Your task to perform on an android device: manage bookmarks in the chrome app Image 0: 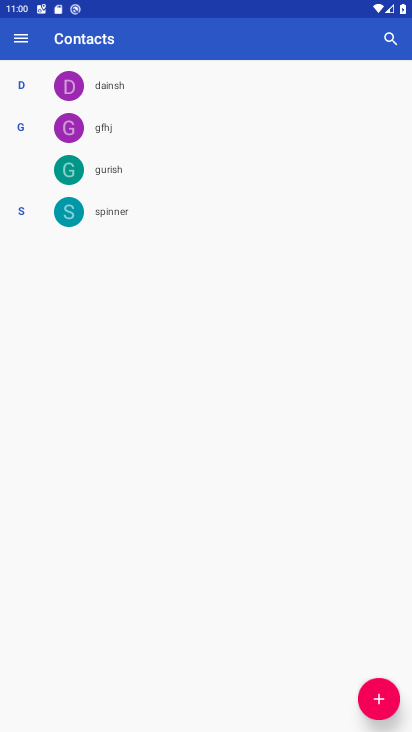
Step 0: press home button
Your task to perform on an android device: manage bookmarks in the chrome app Image 1: 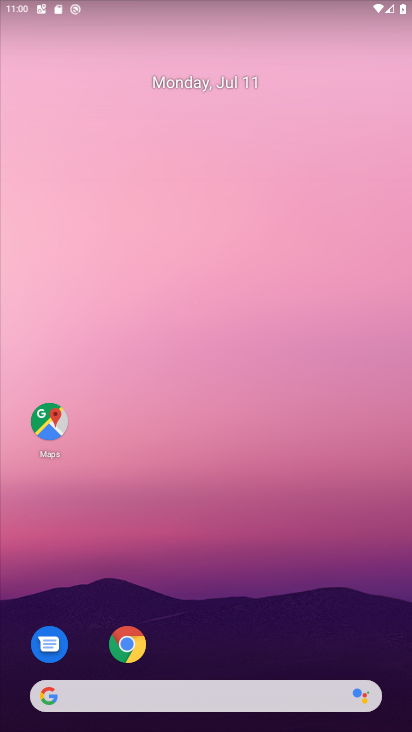
Step 1: click (121, 649)
Your task to perform on an android device: manage bookmarks in the chrome app Image 2: 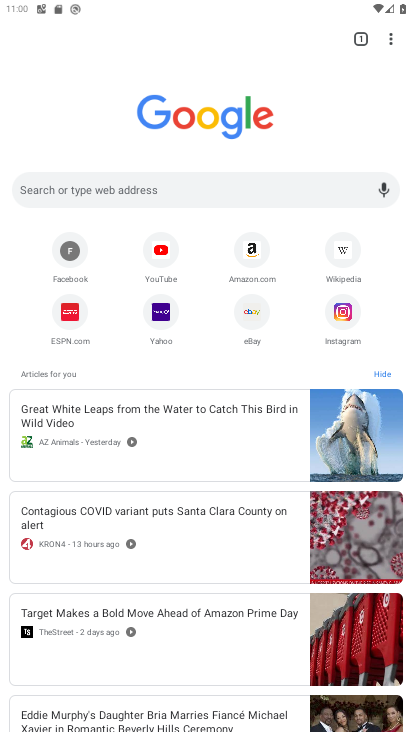
Step 2: click (389, 36)
Your task to perform on an android device: manage bookmarks in the chrome app Image 3: 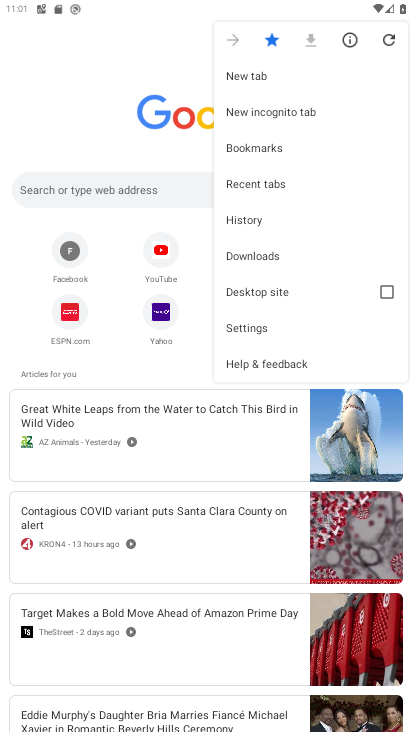
Step 3: click (284, 147)
Your task to perform on an android device: manage bookmarks in the chrome app Image 4: 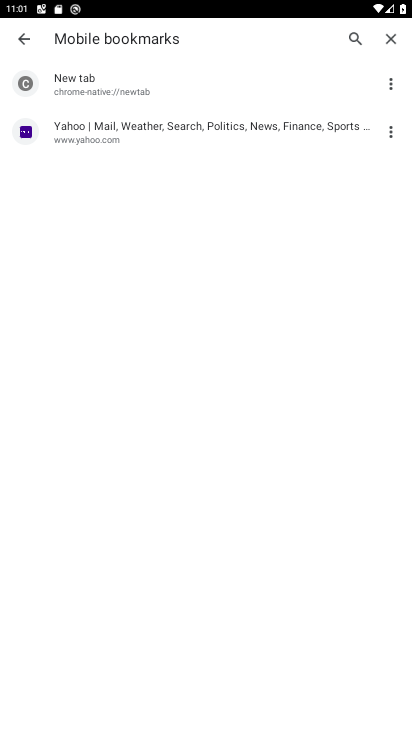
Step 4: click (390, 132)
Your task to perform on an android device: manage bookmarks in the chrome app Image 5: 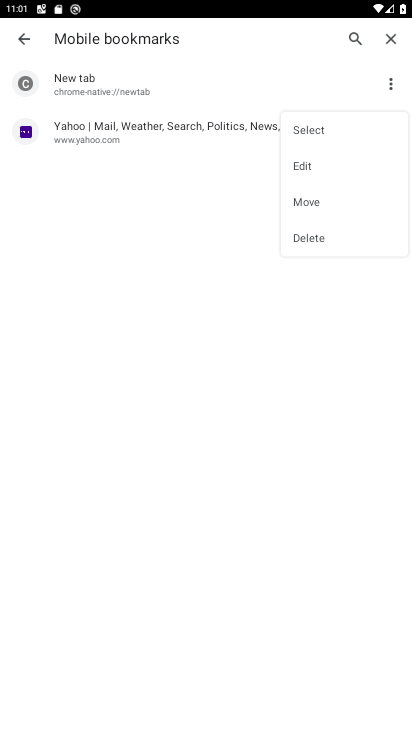
Step 5: click (328, 235)
Your task to perform on an android device: manage bookmarks in the chrome app Image 6: 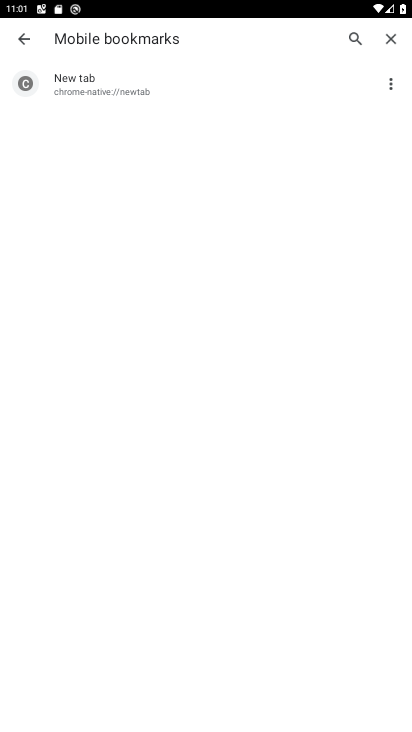
Step 6: task complete